Your task to perform on an android device: change the upload size in google photos Image 0: 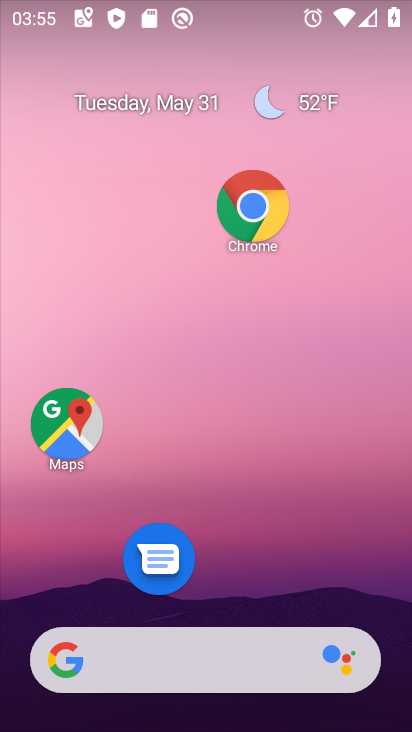
Step 0: drag from (221, 585) to (221, 225)
Your task to perform on an android device: change the upload size in google photos Image 1: 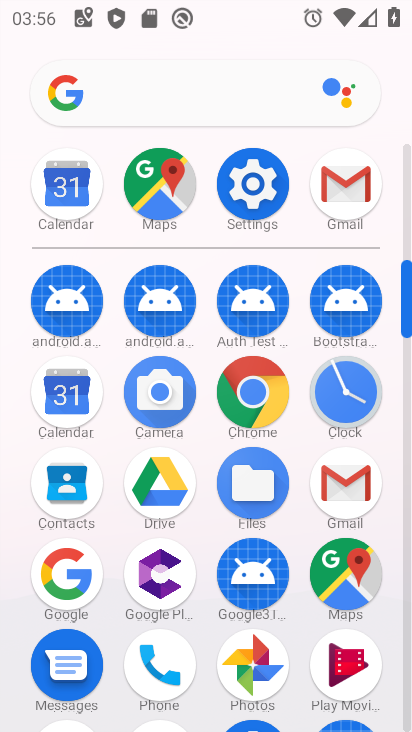
Step 1: drag from (226, 386) to (291, 256)
Your task to perform on an android device: change the upload size in google photos Image 2: 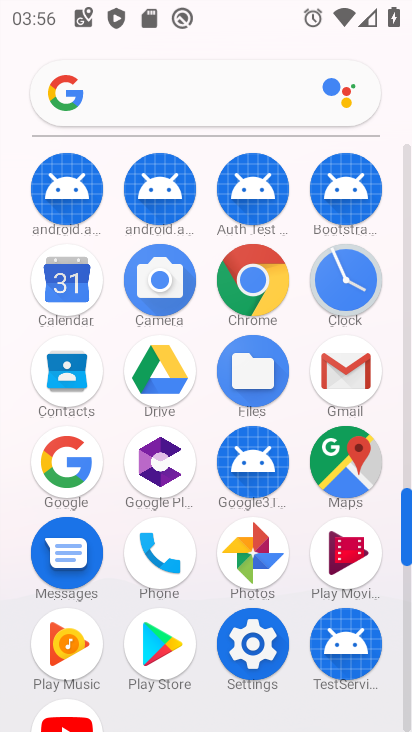
Step 2: click (251, 528)
Your task to perform on an android device: change the upload size in google photos Image 3: 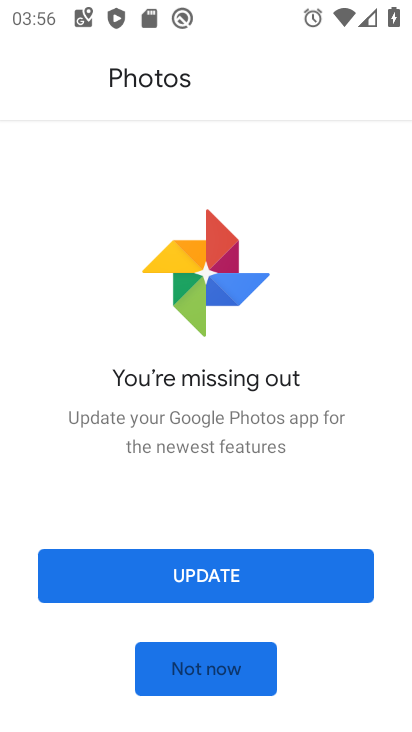
Step 3: click (193, 686)
Your task to perform on an android device: change the upload size in google photos Image 4: 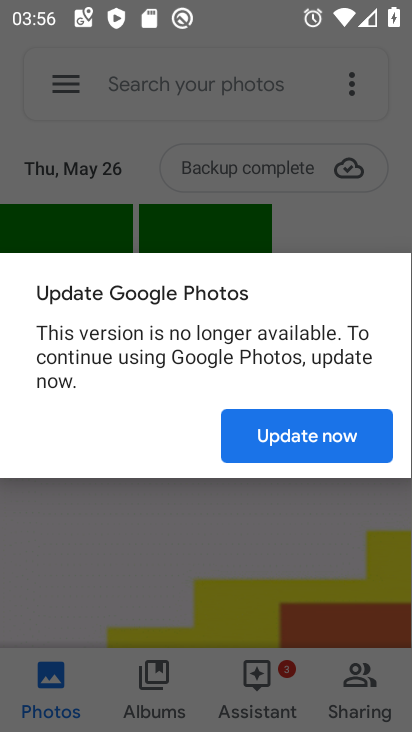
Step 4: click (246, 427)
Your task to perform on an android device: change the upload size in google photos Image 5: 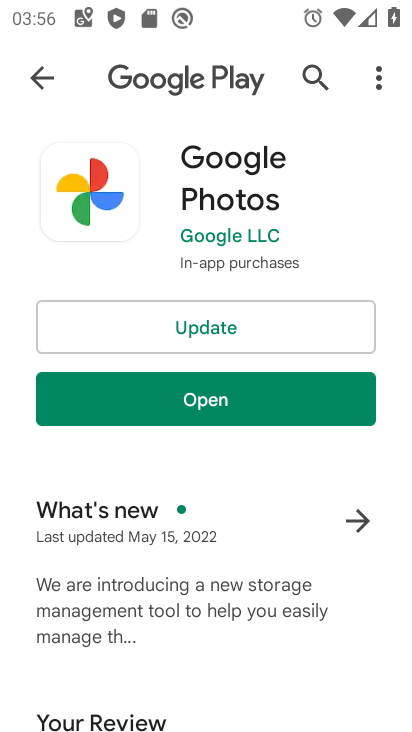
Step 5: click (148, 400)
Your task to perform on an android device: change the upload size in google photos Image 6: 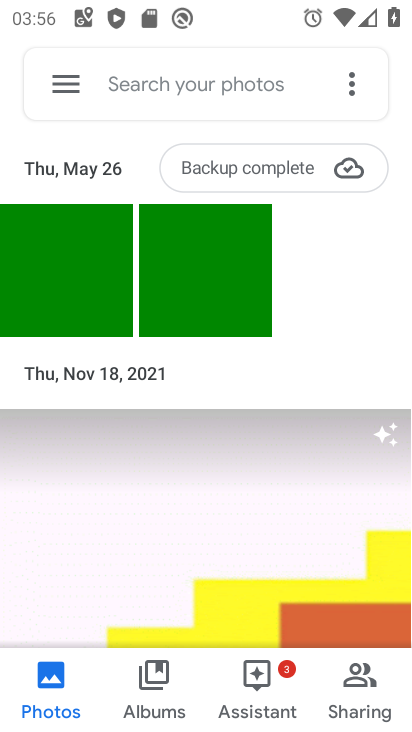
Step 6: click (63, 94)
Your task to perform on an android device: change the upload size in google photos Image 7: 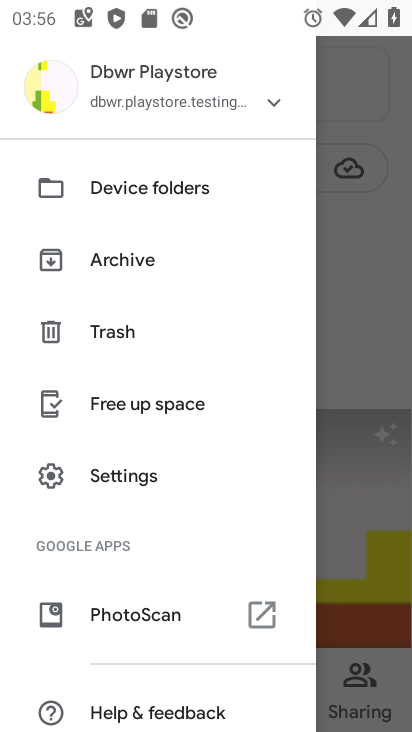
Step 7: drag from (159, 613) to (225, 162)
Your task to perform on an android device: change the upload size in google photos Image 8: 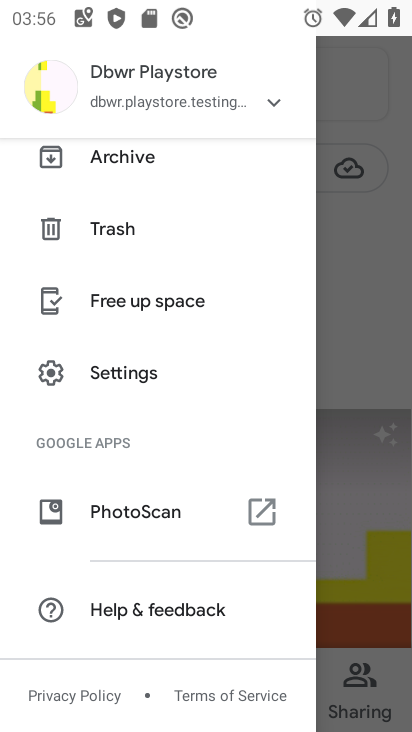
Step 8: click (129, 388)
Your task to perform on an android device: change the upload size in google photos Image 9: 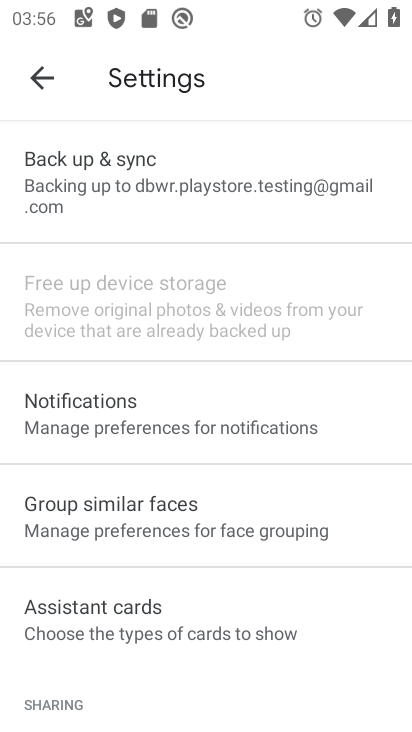
Step 9: drag from (173, 217) to (173, 558)
Your task to perform on an android device: change the upload size in google photos Image 10: 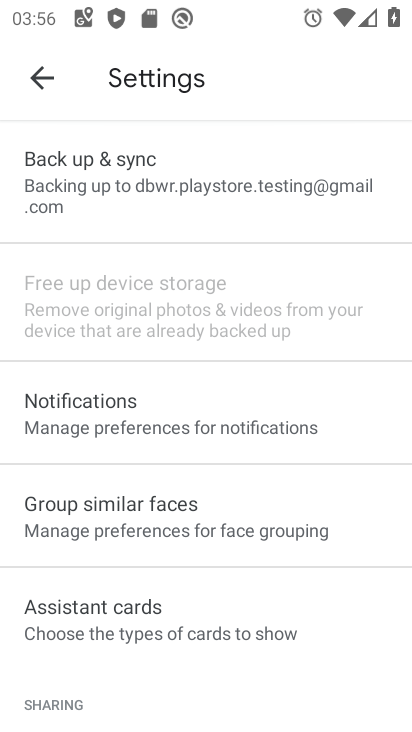
Step 10: drag from (173, 558) to (207, 193)
Your task to perform on an android device: change the upload size in google photos Image 11: 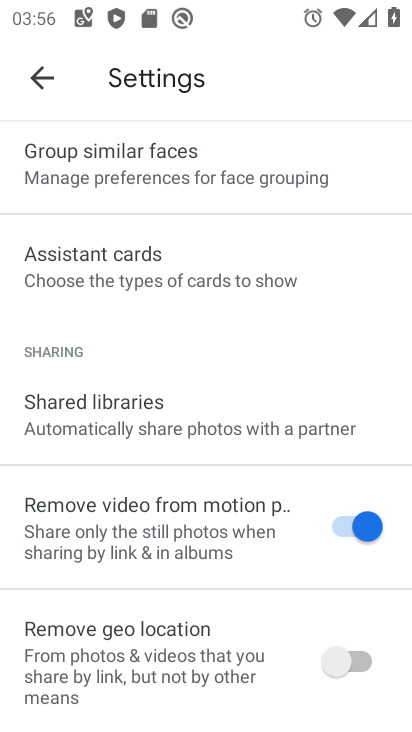
Step 11: drag from (100, 193) to (117, 586)
Your task to perform on an android device: change the upload size in google photos Image 12: 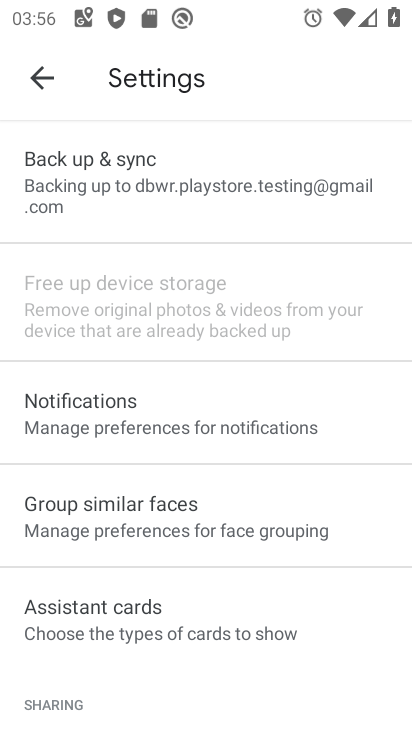
Step 12: click (157, 184)
Your task to perform on an android device: change the upload size in google photos Image 13: 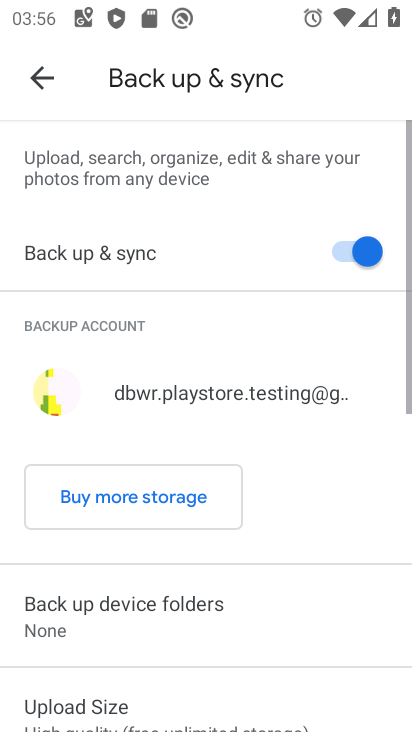
Step 13: click (157, 198)
Your task to perform on an android device: change the upload size in google photos Image 14: 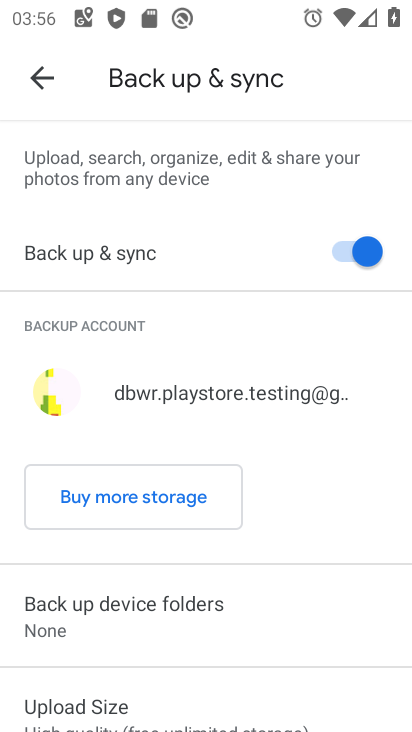
Step 14: drag from (139, 639) to (209, 270)
Your task to perform on an android device: change the upload size in google photos Image 15: 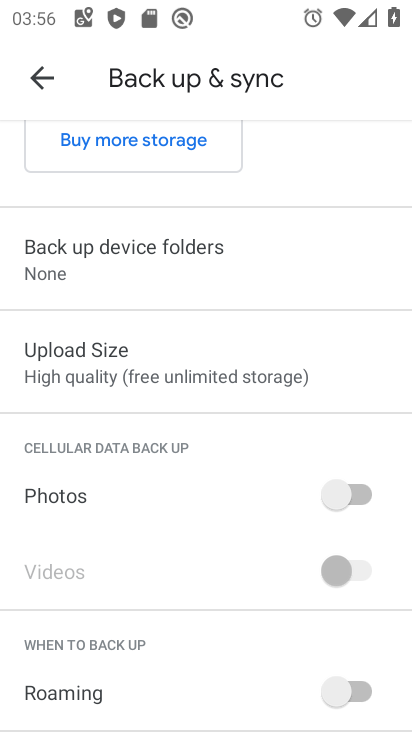
Step 15: click (141, 385)
Your task to perform on an android device: change the upload size in google photos Image 16: 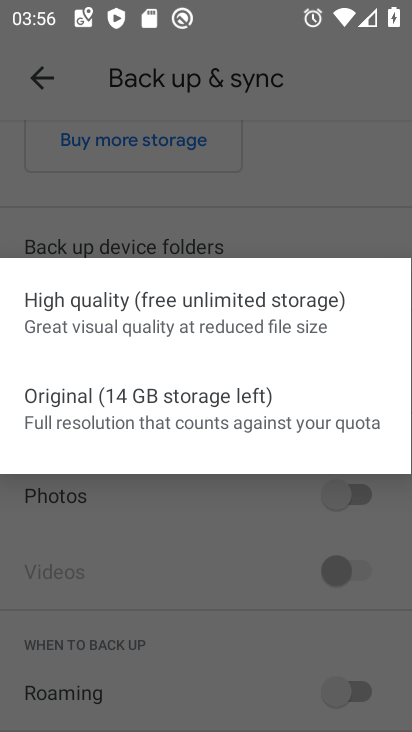
Step 16: click (141, 385)
Your task to perform on an android device: change the upload size in google photos Image 17: 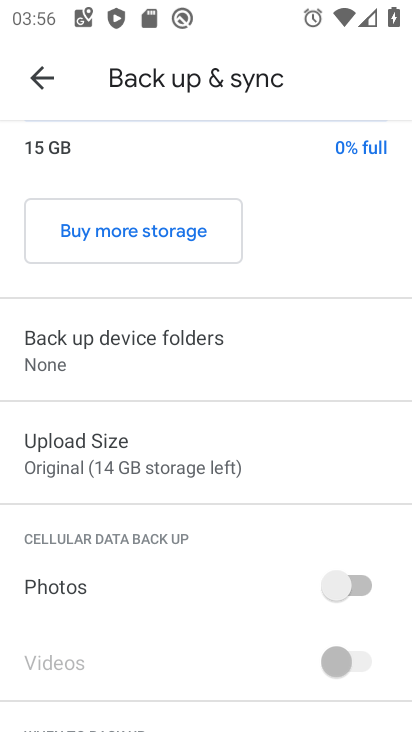
Step 17: task complete